Your task to perform on an android device: allow cookies in the chrome app Image 0: 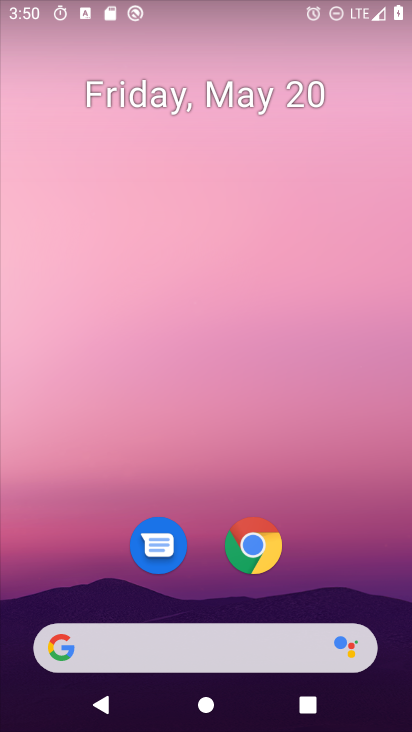
Step 0: drag from (227, 638) to (295, 7)
Your task to perform on an android device: allow cookies in the chrome app Image 1: 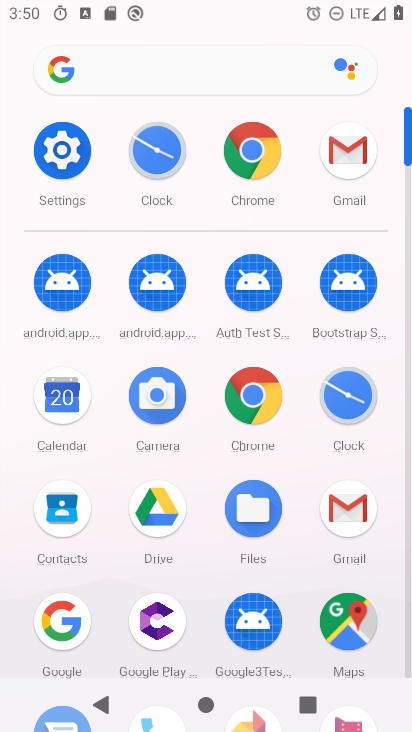
Step 1: click (275, 387)
Your task to perform on an android device: allow cookies in the chrome app Image 2: 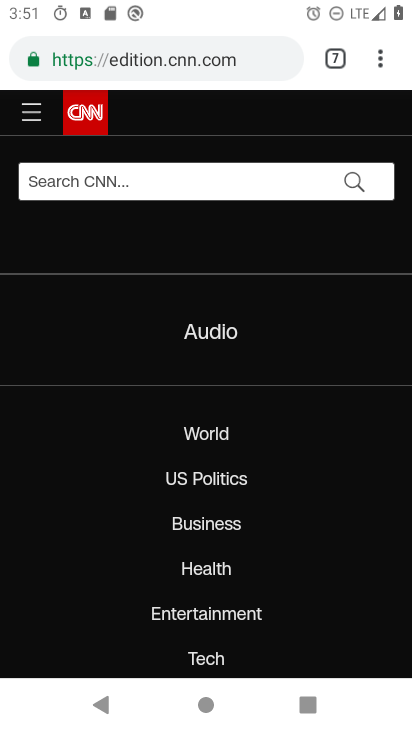
Step 2: click (381, 54)
Your task to perform on an android device: allow cookies in the chrome app Image 3: 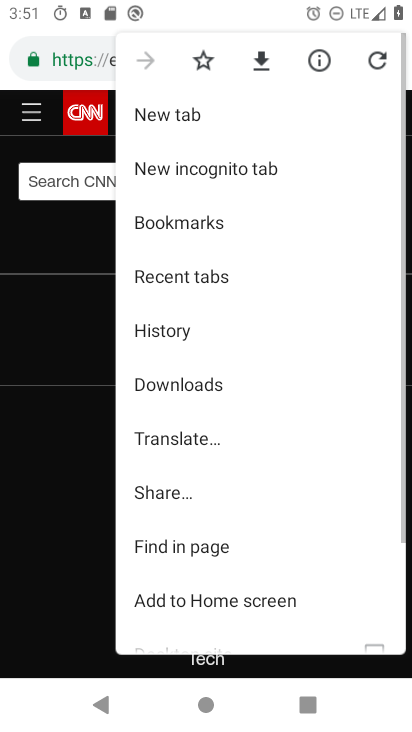
Step 3: drag from (200, 514) to (228, 111)
Your task to perform on an android device: allow cookies in the chrome app Image 4: 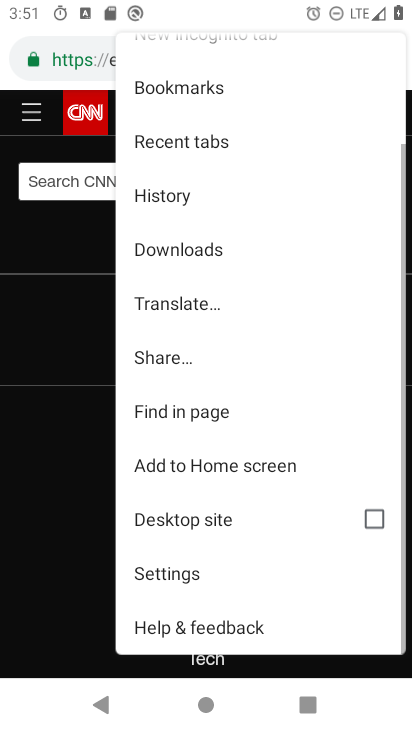
Step 4: click (184, 586)
Your task to perform on an android device: allow cookies in the chrome app Image 5: 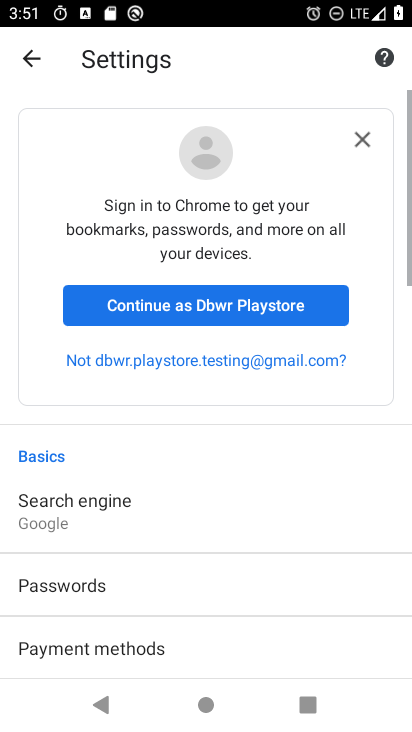
Step 5: drag from (184, 586) to (150, 43)
Your task to perform on an android device: allow cookies in the chrome app Image 6: 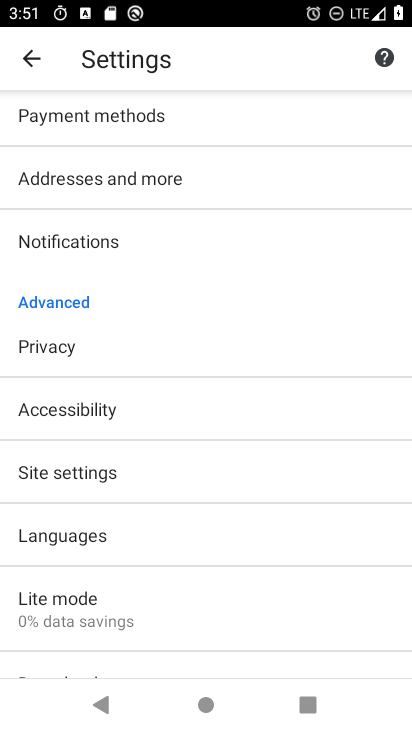
Step 6: click (82, 495)
Your task to perform on an android device: allow cookies in the chrome app Image 7: 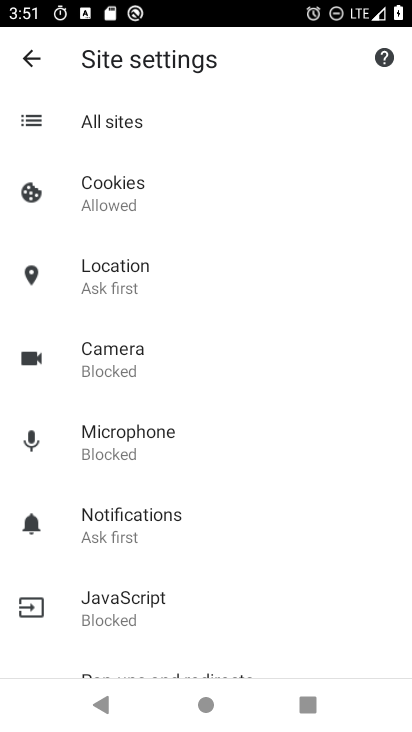
Step 7: click (155, 193)
Your task to perform on an android device: allow cookies in the chrome app Image 8: 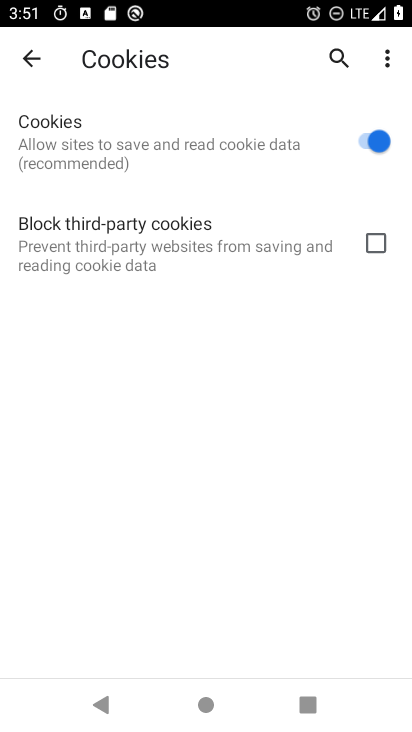
Step 8: task complete